Your task to perform on an android device: When is my next meeting? Image 0: 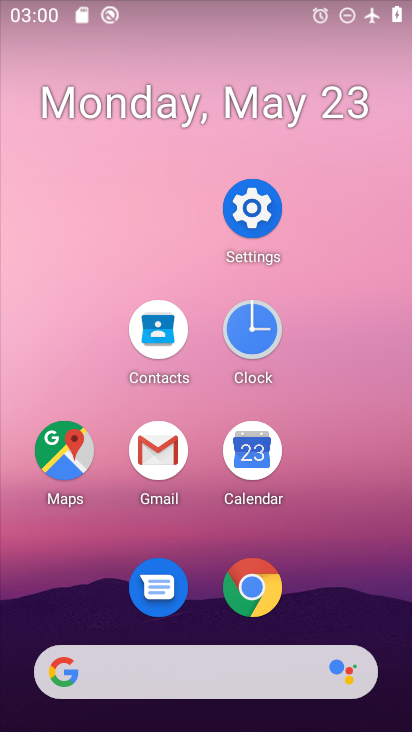
Step 0: click (275, 248)
Your task to perform on an android device: When is my next meeting? Image 1: 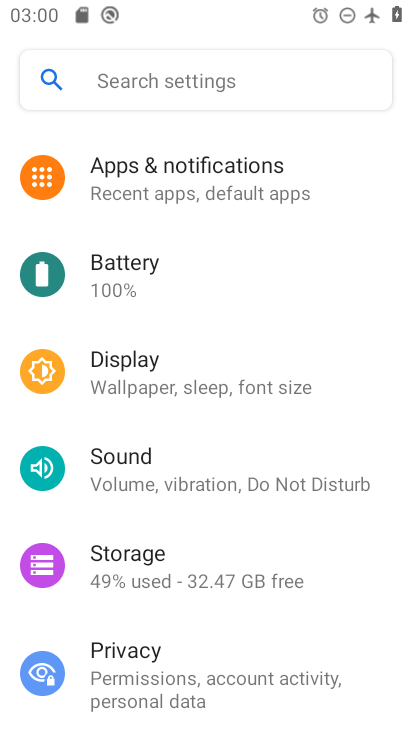
Step 1: press home button
Your task to perform on an android device: When is my next meeting? Image 2: 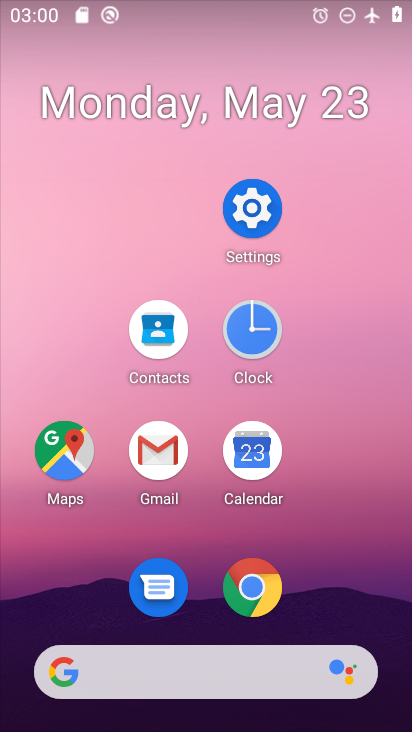
Step 2: click (276, 449)
Your task to perform on an android device: When is my next meeting? Image 3: 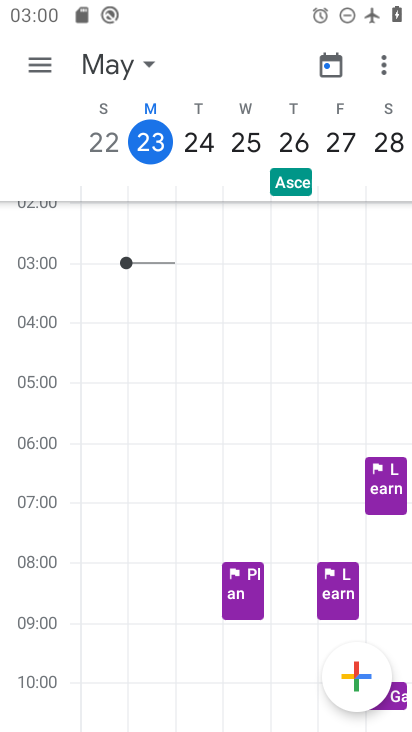
Step 3: task complete